Your task to perform on an android device: show emergency info Image 0: 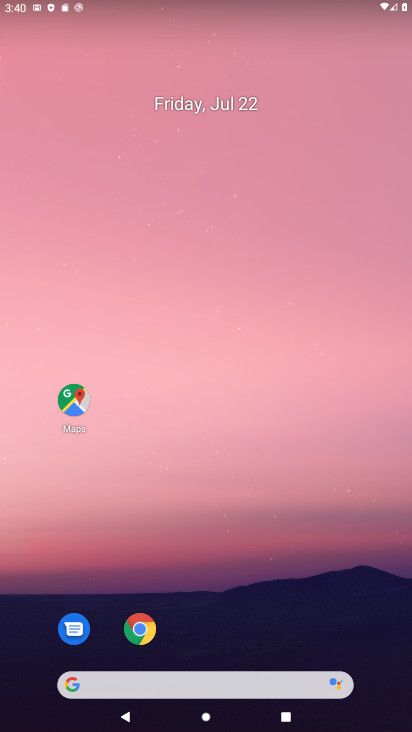
Step 0: drag from (249, 572) to (254, 100)
Your task to perform on an android device: show emergency info Image 1: 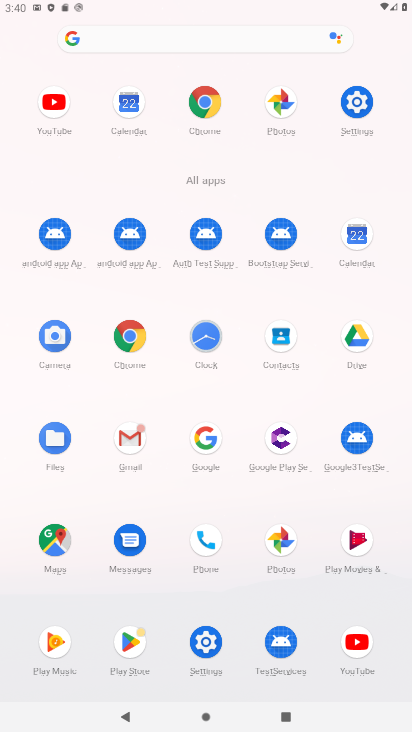
Step 1: click (359, 103)
Your task to perform on an android device: show emergency info Image 2: 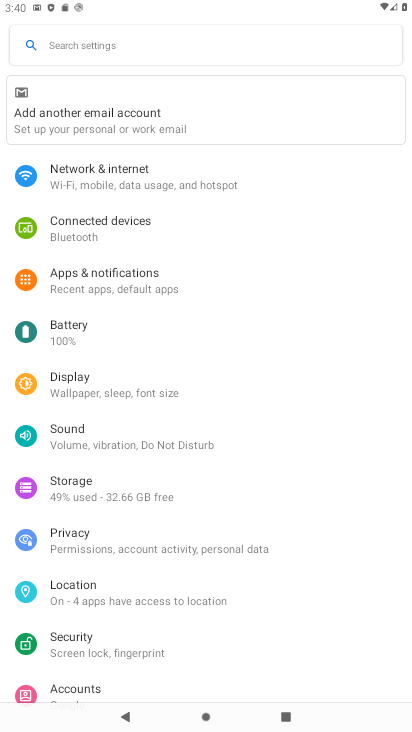
Step 2: drag from (177, 658) to (234, 170)
Your task to perform on an android device: show emergency info Image 3: 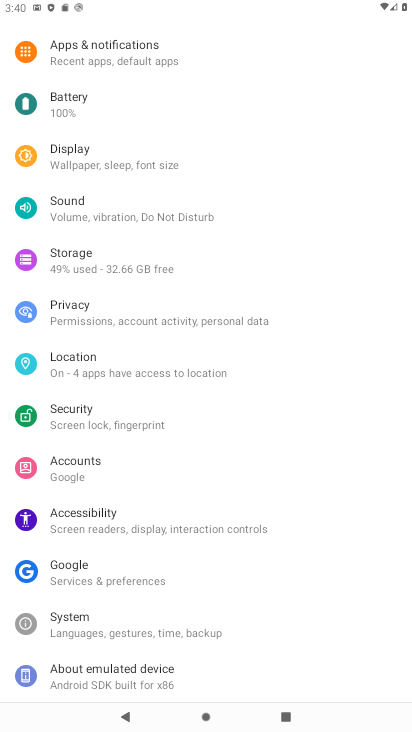
Step 3: click (119, 679)
Your task to perform on an android device: show emergency info Image 4: 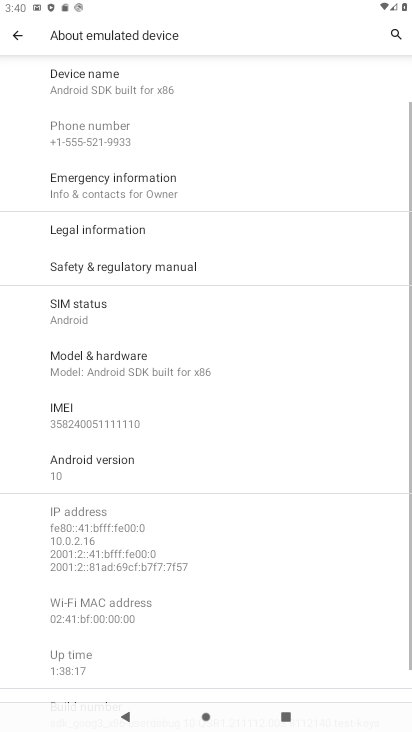
Step 4: click (143, 184)
Your task to perform on an android device: show emergency info Image 5: 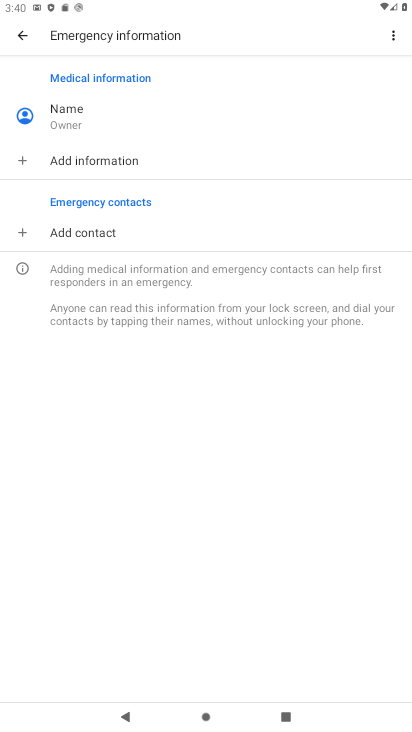
Step 5: task complete